Your task to perform on an android device: toggle notifications settings in the gmail app Image 0: 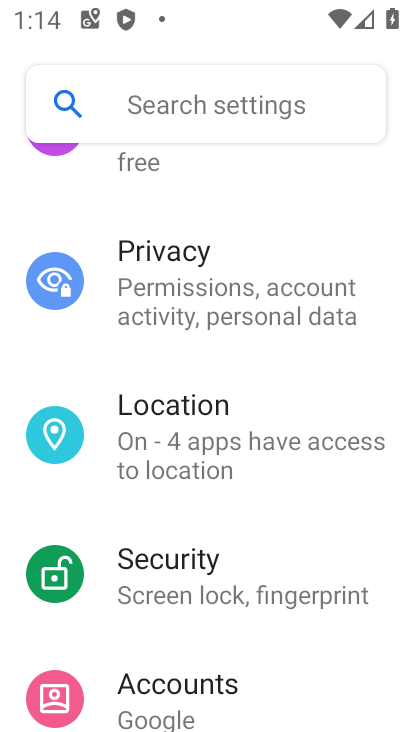
Step 0: press home button
Your task to perform on an android device: toggle notifications settings in the gmail app Image 1: 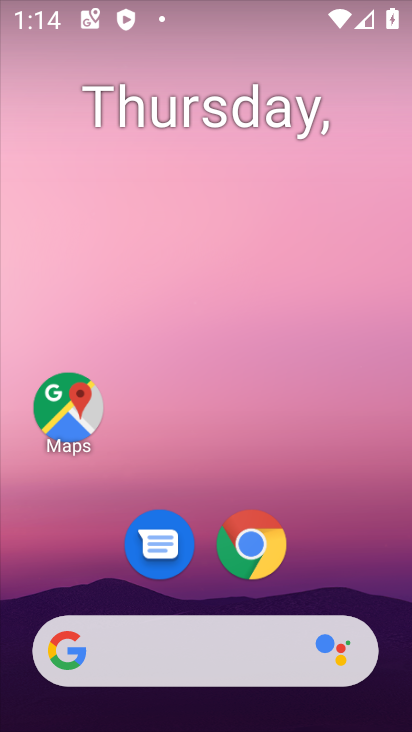
Step 1: drag from (223, 724) to (222, 170)
Your task to perform on an android device: toggle notifications settings in the gmail app Image 2: 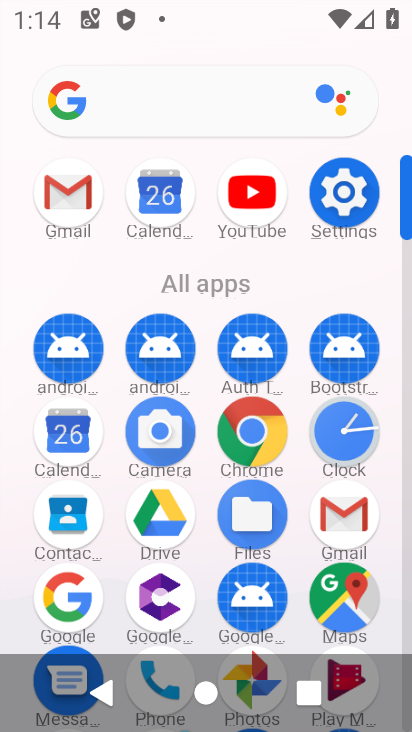
Step 2: click (360, 518)
Your task to perform on an android device: toggle notifications settings in the gmail app Image 3: 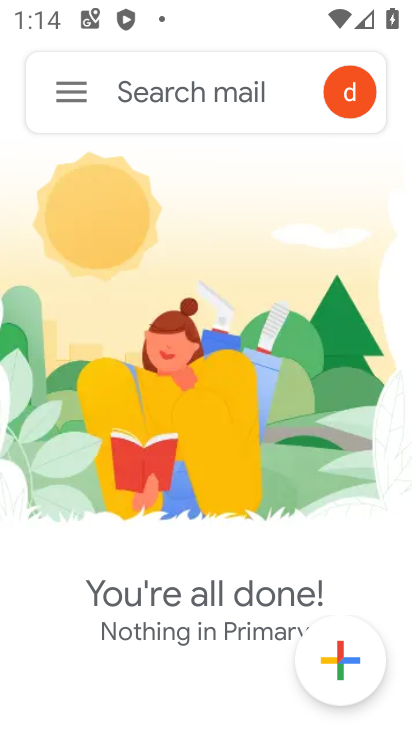
Step 3: click (70, 87)
Your task to perform on an android device: toggle notifications settings in the gmail app Image 4: 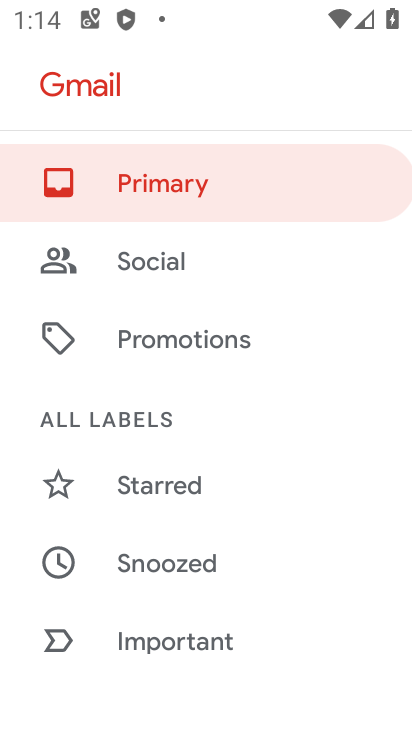
Step 4: drag from (153, 667) to (165, 64)
Your task to perform on an android device: toggle notifications settings in the gmail app Image 5: 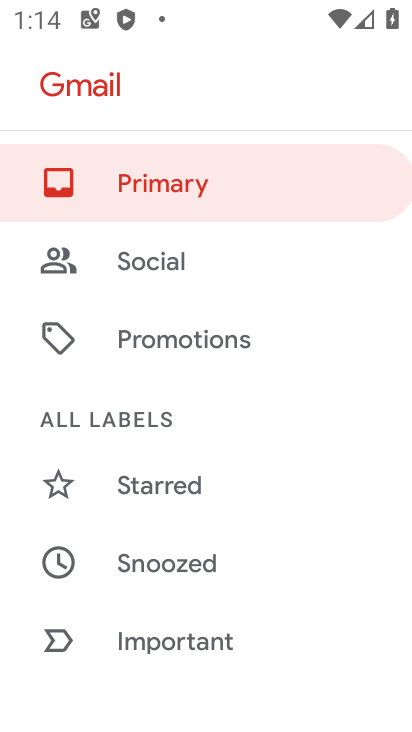
Step 5: drag from (142, 644) to (158, 515)
Your task to perform on an android device: toggle notifications settings in the gmail app Image 6: 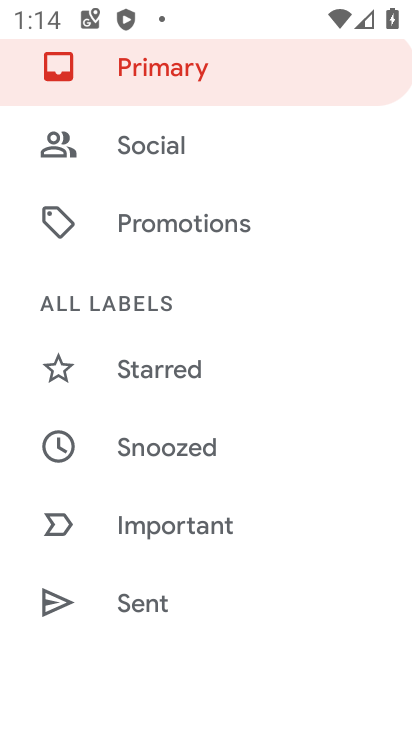
Step 6: drag from (154, 291) to (144, 219)
Your task to perform on an android device: toggle notifications settings in the gmail app Image 7: 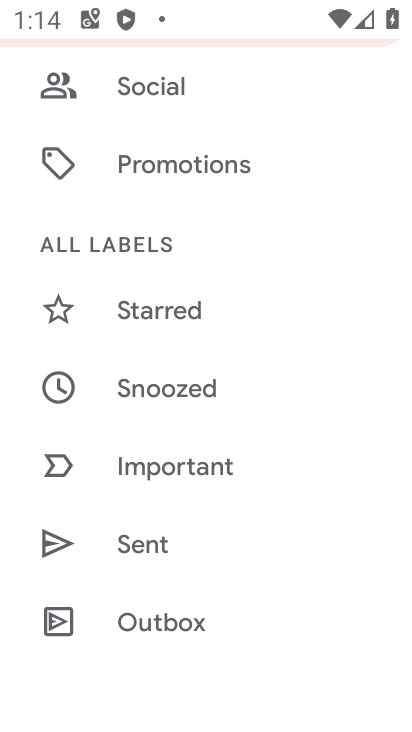
Step 7: drag from (152, 610) to (154, 91)
Your task to perform on an android device: toggle notifications settings in the gmail app Image 8: 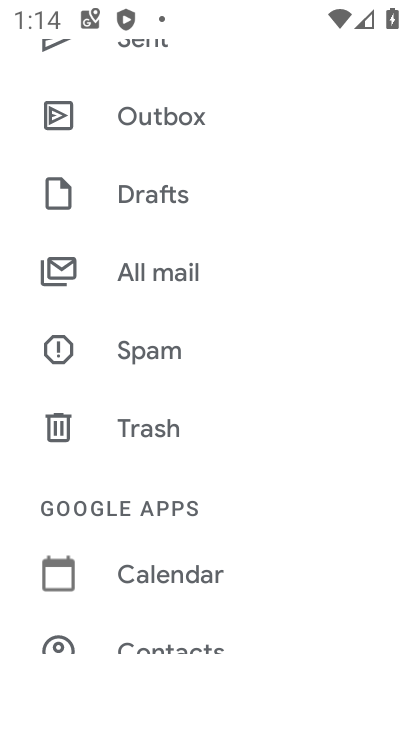
Step 8: drag from (139, 623) to (150, 472)
Your task to perform on an android device: toggle notifications settings in the gmail app Image 9: 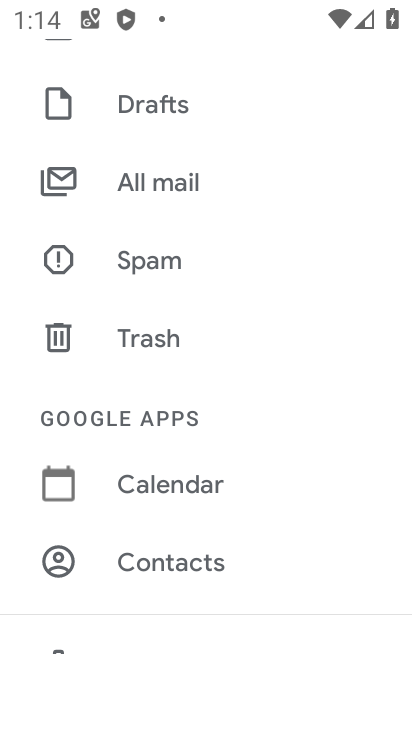
Step 9: drag from (150, 113) to (150, 74)
Your task to perform on an android device: toggle notifications settings in the gmail app Image 10: 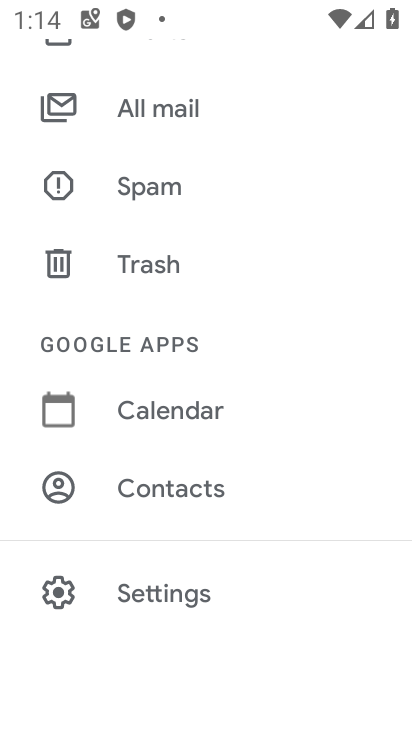
Step 10: click (135, 596)
Your task to perform on an android device: toggle notifications settings in the gmail app Image 11: 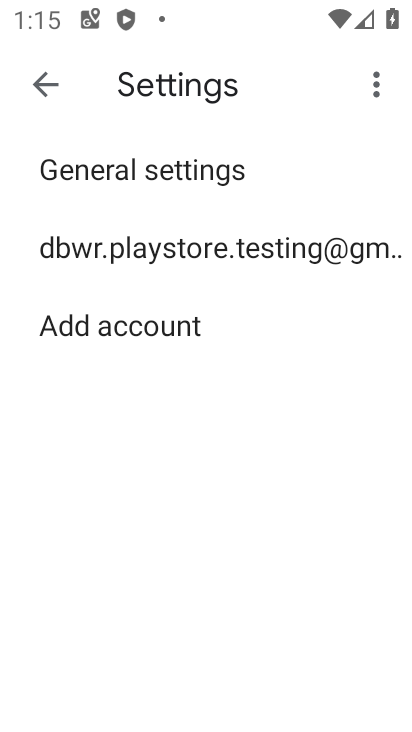
Step 11: click (155, 247)
Your task to perform on an android device: toggle notifications settings in the gmail app Image 12: 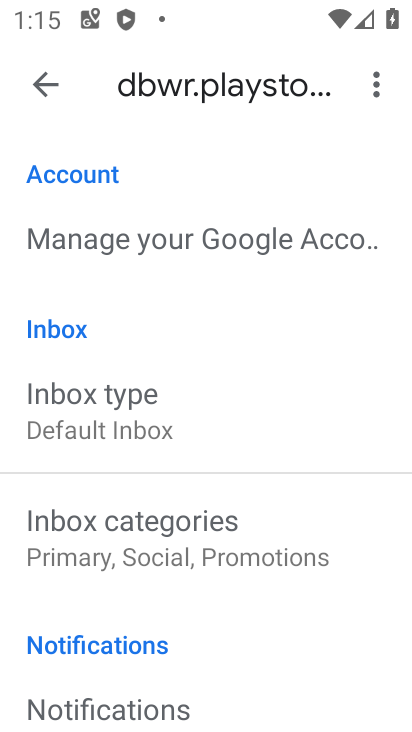
Step 12: task complete